Your task to perform on an android device: When is my next appointment? Image 0: 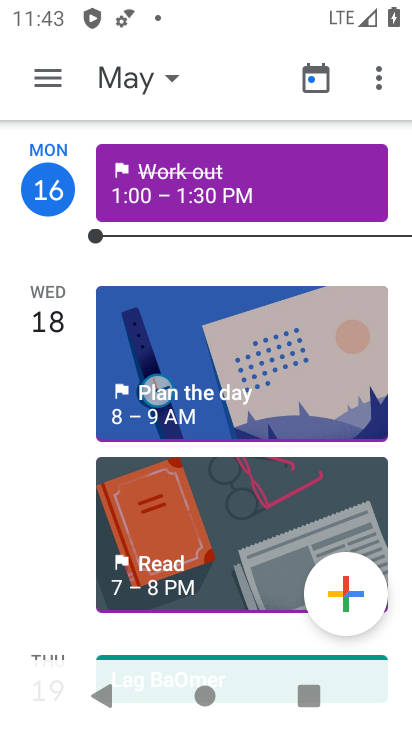
Step 0: press home button
Your task to perform on an android device: When is my next appointment? Image 1: 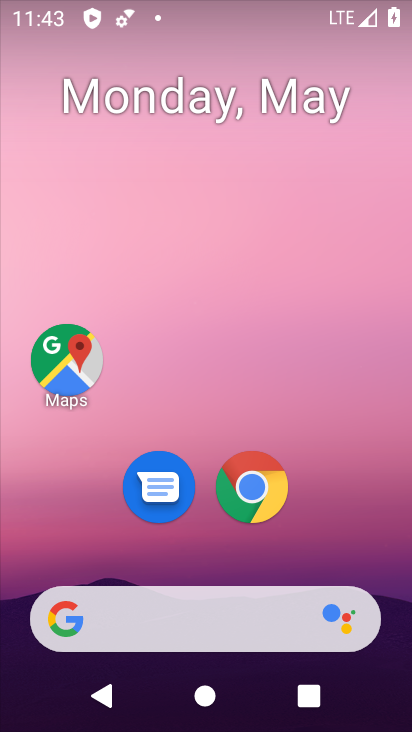
Step 1: drag from (48, 492) to (223, 167)
Your task to perform on an android device: When is my next appointment? Image 2: 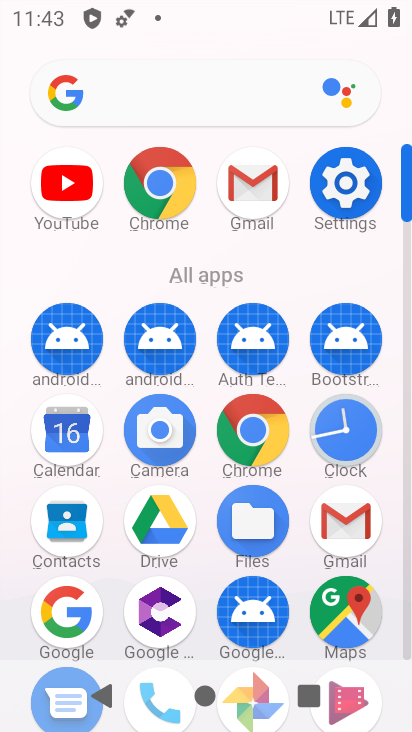
Step 2: click (55, 437)
Your task to perform on an android device: When is my next appointment? Image 3: 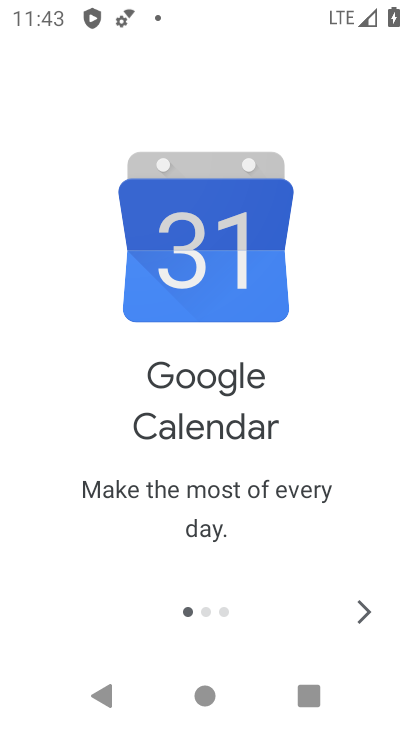
Step 3: click (361, 612)
Your task to perform on an android device: When is my next appointment? Image 4: 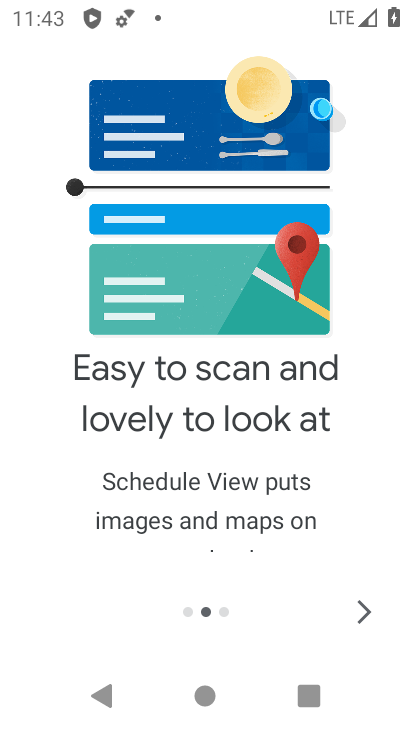
Step 4: click (361, 611)
Your task to perform on an android device: When is my next appointment? Image 5: 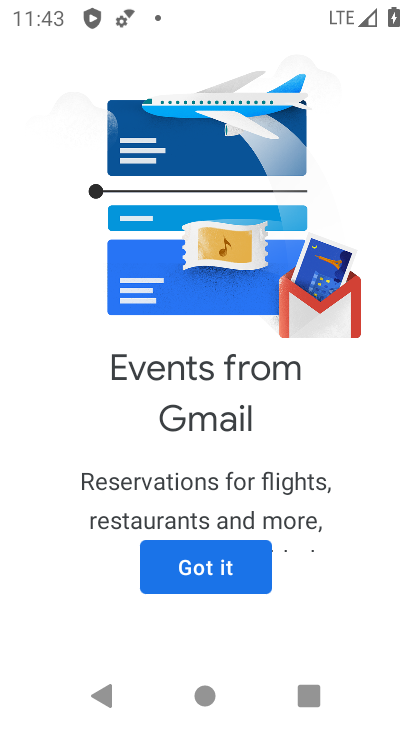
Step 5: click (243, 568)
Your task to perform on an android device: When is my next appointment? Image 6: 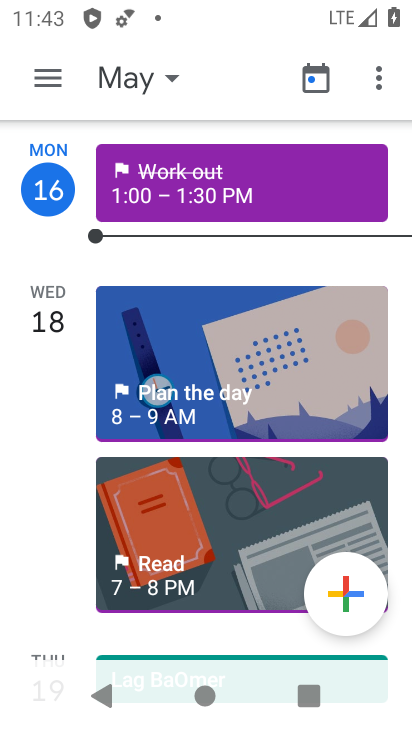
Step 6: click (124, 83)
Your task to perform on an android device: When is my next appointment? Image 7: 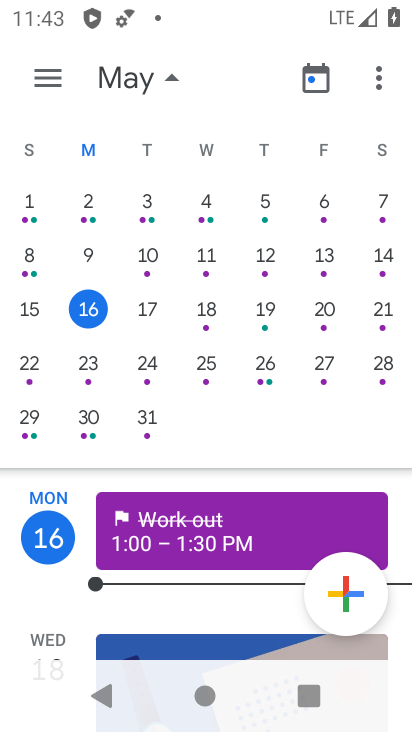
Step 7: click (140, 300)
Your task to perform on an android device: When is my next appointment? Image 8: 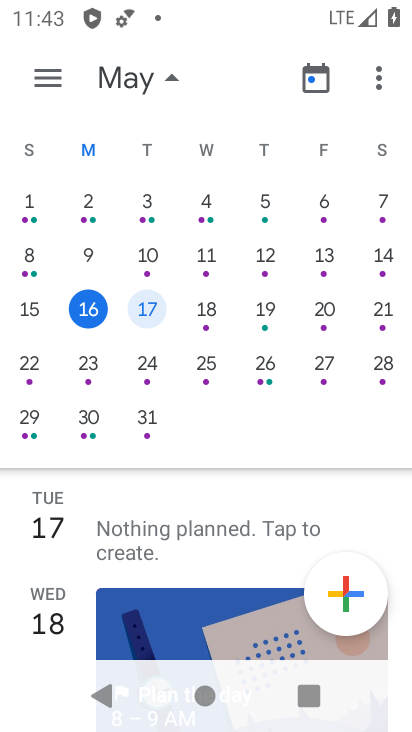
Step 8: task complete